Your task to perform on an android device: change the clock display to digital Image 0: 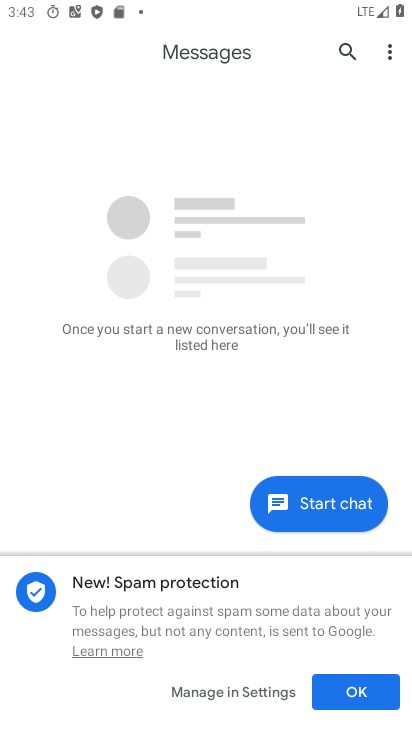
Step 0: press home button
Your task to perform on an android device: change the clock display to digital Image 1: 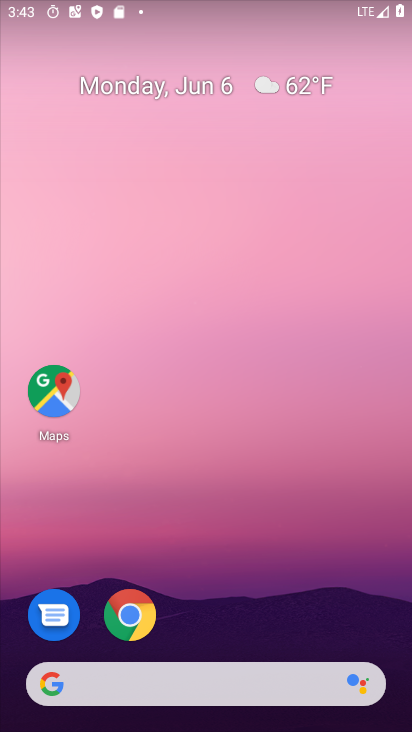
Step 1: drag from (193, 664) to (266, 8)
Your task to perform on an android device: change the clock display to digital Image 2: 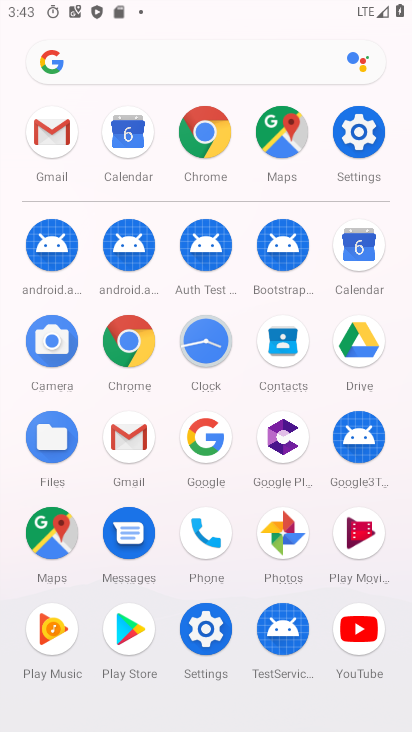
Step 2: click (213, 350)
Your task to perform on an android device: change the clock display to digital Image 3: 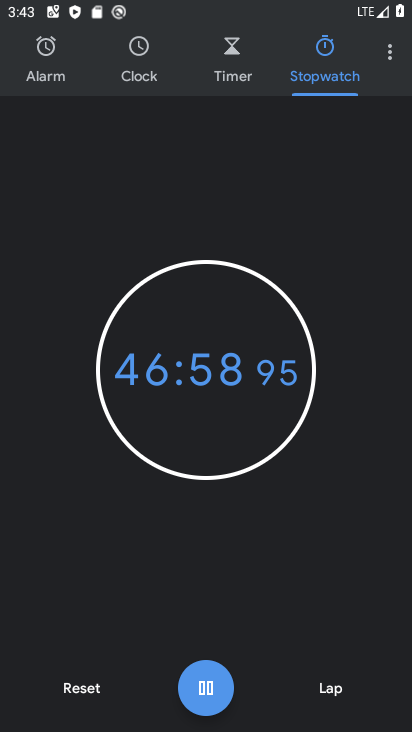
Step 3: click (396, 51)
Your task to perform on an android device: change the clock display to digital Image 4: 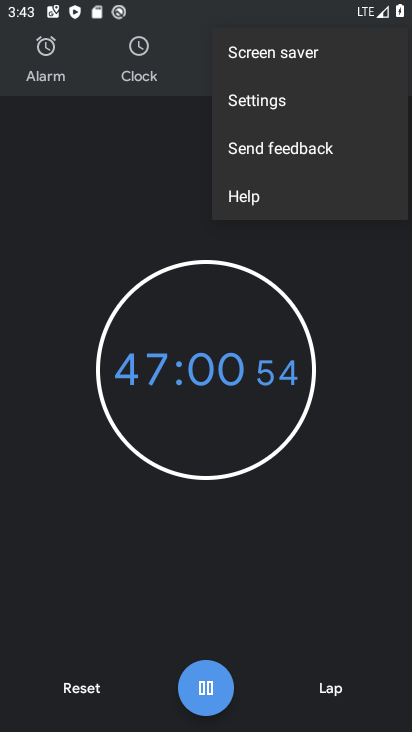
Step 4: click (326, 103)
Your task to perform on an android device: change the clock display to digital Image 5: 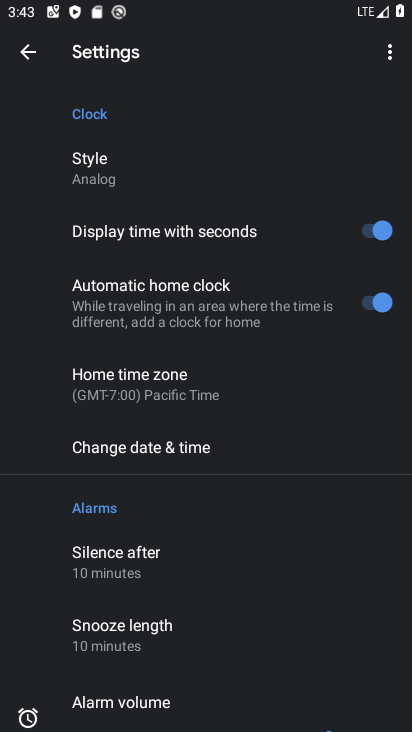
Step 5: click (162, 167)
Your task to perform on an android device: change the clock display to digital Image 6: 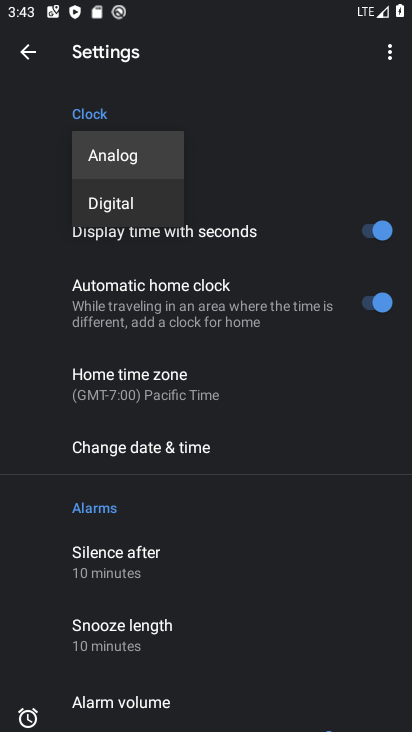
Step 6: click (146, 198)
Your task to perform on an android device: change the clock display to digital Image 7: 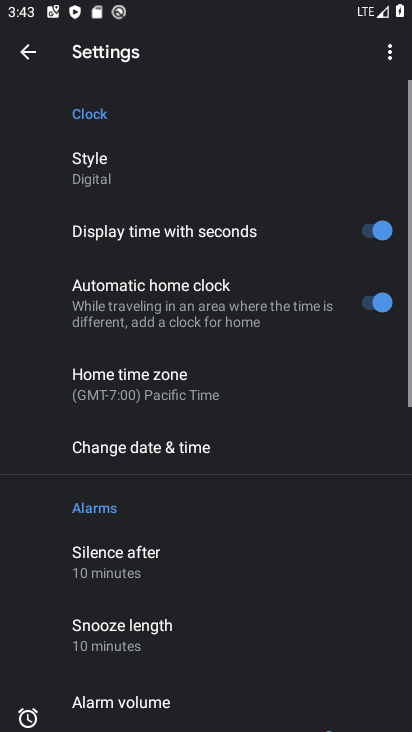
Step 7: task complete